Your task to perform on an android device: Search for Italian restaurants on Maps Image 0: 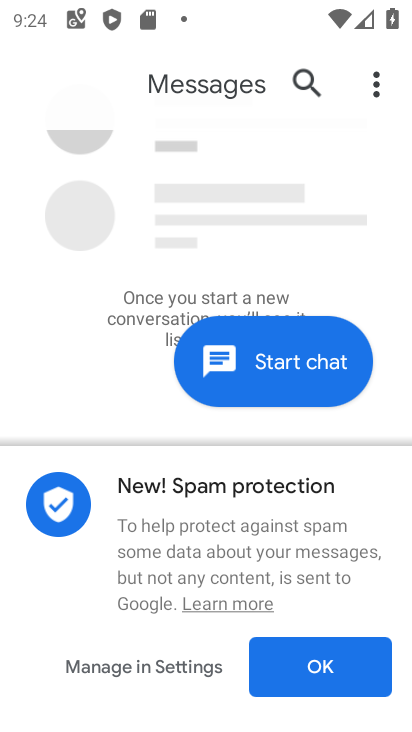
Step 0: click (285, 673)
Your task to perform on an android device: Search for Italian restaurants on Maps Image 1: 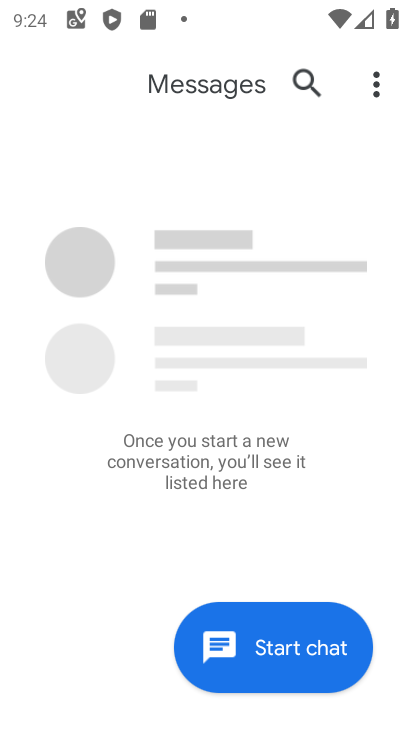
Step 1: press back button
Your task to perform on an android device: Search for Italian restaurants on Maps Image 2: 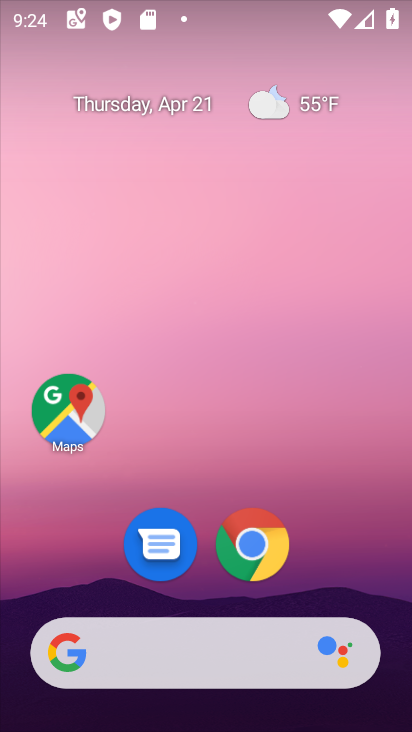
Step 2: click (68, 408)
Your task to perform on an android device: Search for Italian restaurants on Maps Image 3: 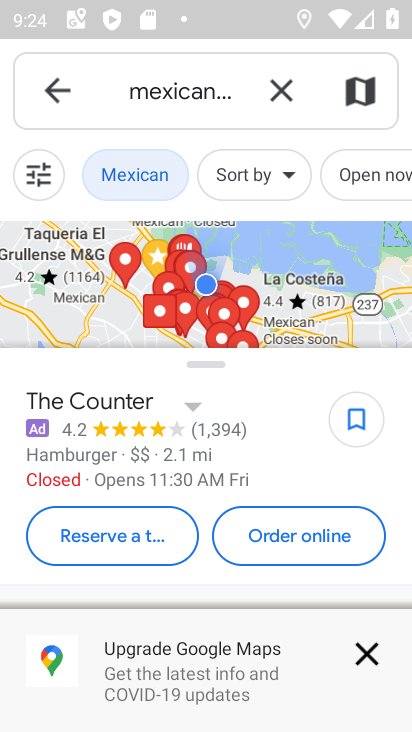
Step 3: click (288, 96)
Your task to perform on an android device: Search for Italian restaurants on Maps Image 4: 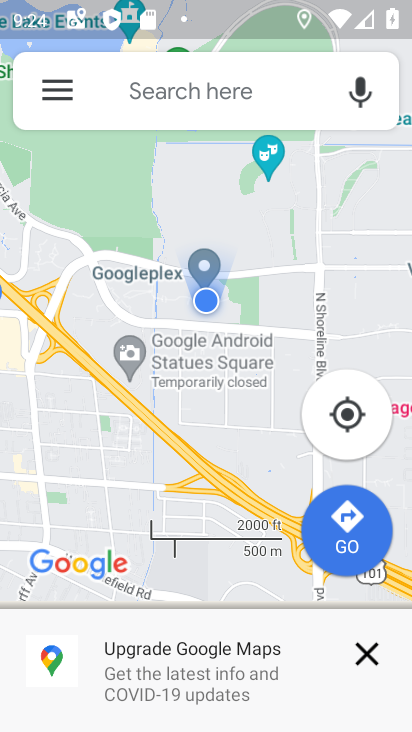
Step 4: click (256, 91)
Your task to perform on an android device: Search for Italian restaurants on Maps Image 5: 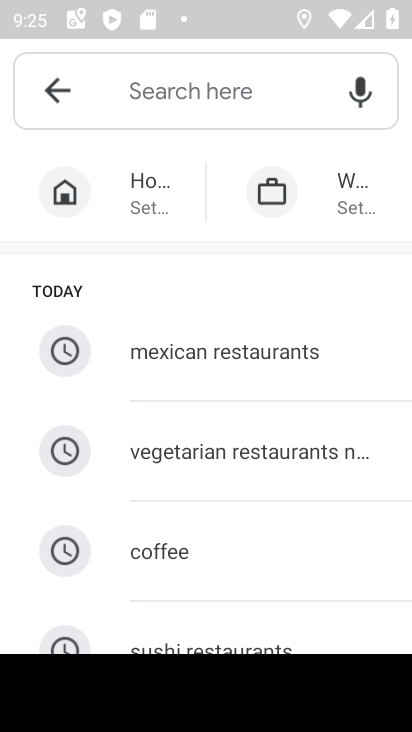
Step 5: click (224, 101)
Your task to perform on an android device: Search for Italian restaurants on Maps Image 6: 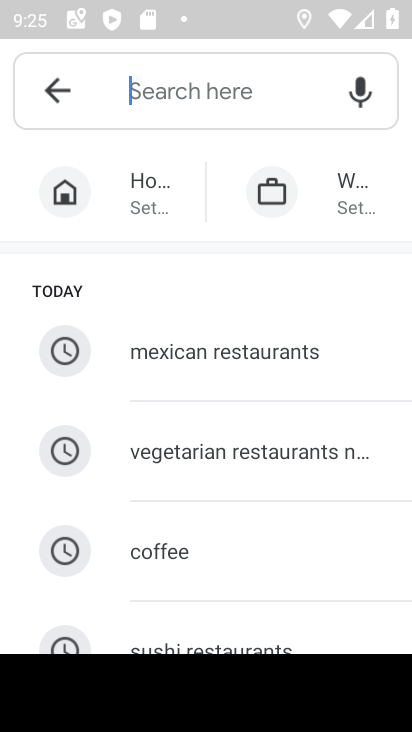
Step 6: type "Italian restaurants"
Your task to perform on an android device: Search for Italian restaurants on Maps Image 7: 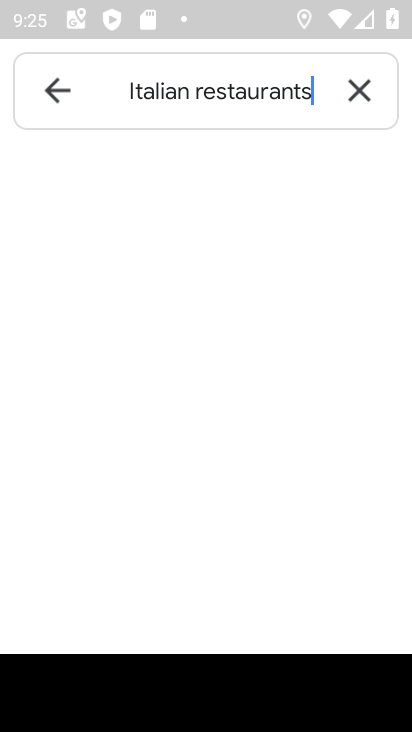
Step 7: type ""
Your task to perform on an android device: Search for Italian restaurants on Maps Image 8: 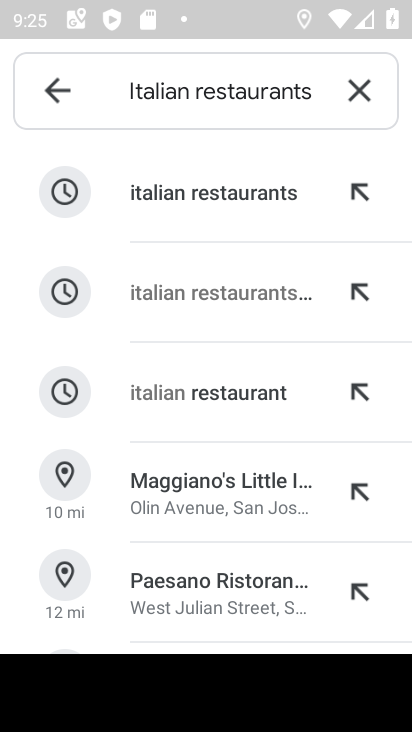
Step 8: click (281, 198)
Your task to perform on an android device: Search for Italian restaurants on Maps Image 9: 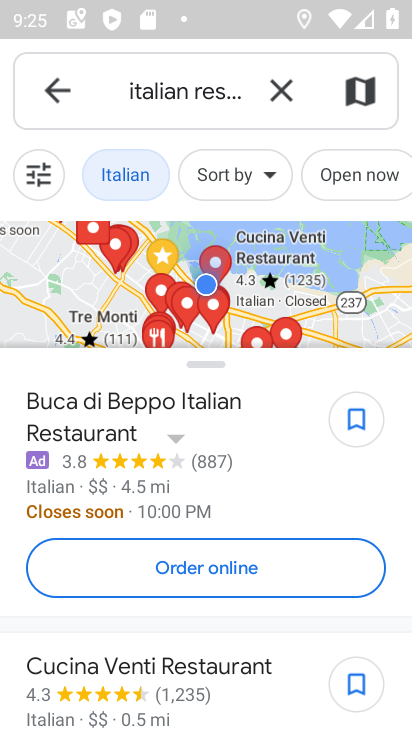
Step 9: task complete